Your task to perform on an android device: What's on my calendar today? Image 0: 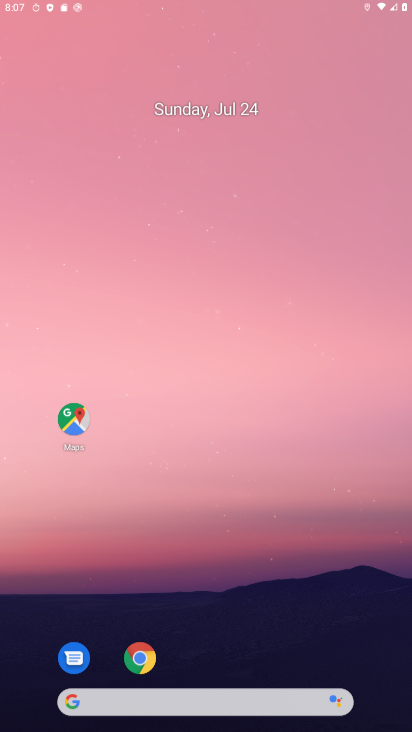
Step 0: drag from (264, 705) to (297, 255)
Your task to perform on an android device: What's on my calendar today? Image 1: 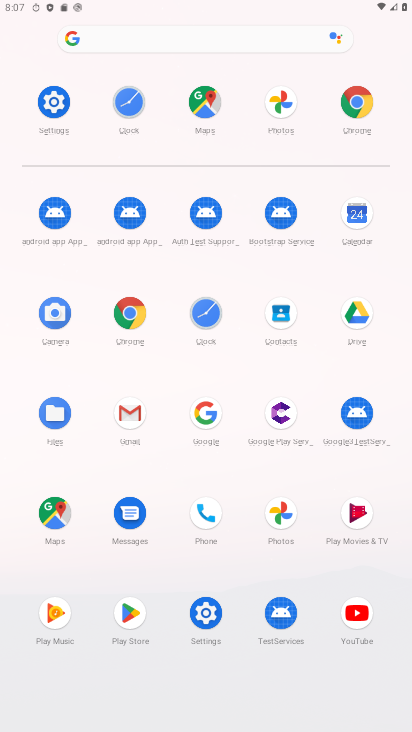
Step 1: click (358, 209)
Your task to perform on an android device: What's on my calendar today? Image 2: 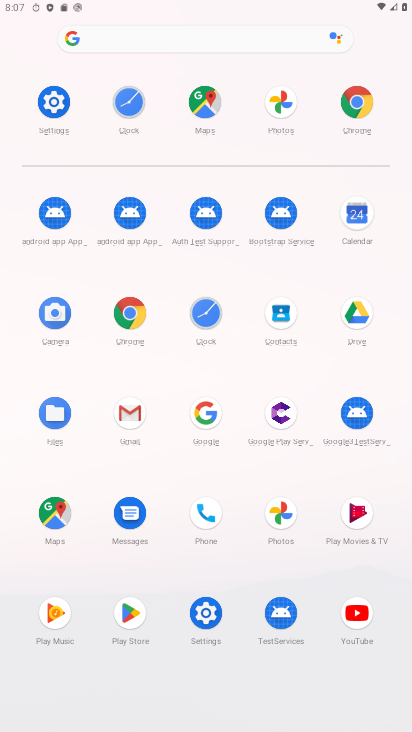
Step 2: click (358, 209)
Your task to perform on an android device: What's on my calendar today? Image 3: 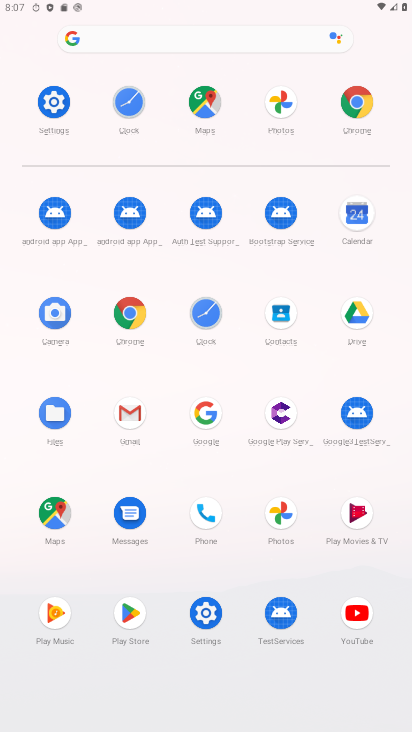
Step 3: click (358, 210)
Your task to perform on an android device: What's on my calendar today? Image 4: 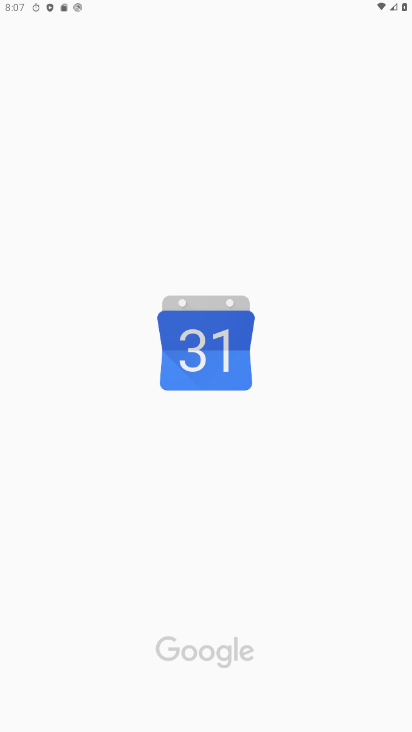
Step 4: click (358, 212)
Your task to perform on an android device: What's on my calendar today? Image 5: 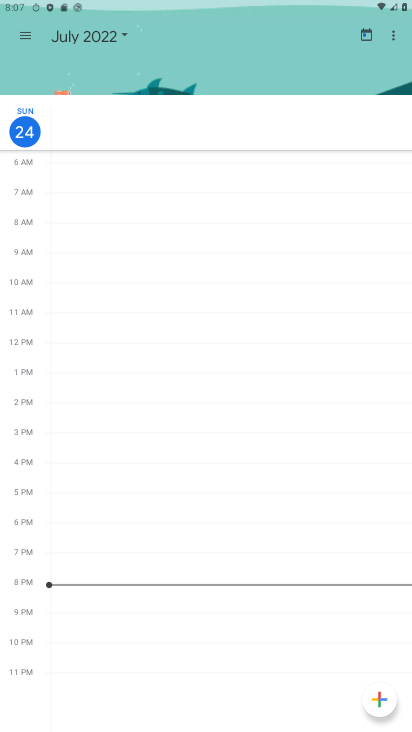
Step 5: click (115, 39)
Your task to perform on an android device: What's on my calendar today? Image 6: 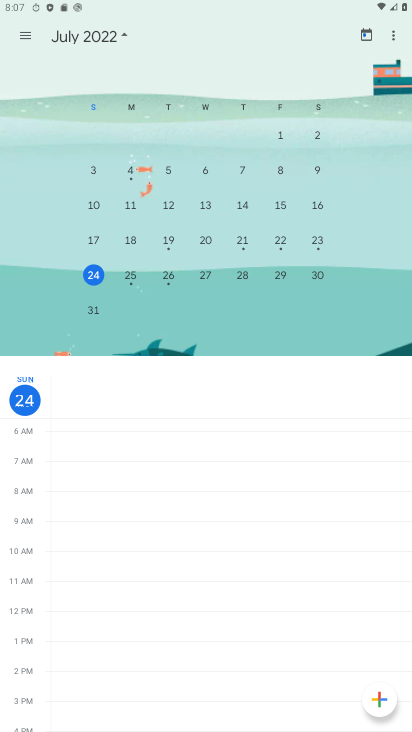
Step 6: task complete